Your task to perform on an android device: open app "Paramount+ | Peak Streaming" (install if not already installed) and go to login screen Image 0: 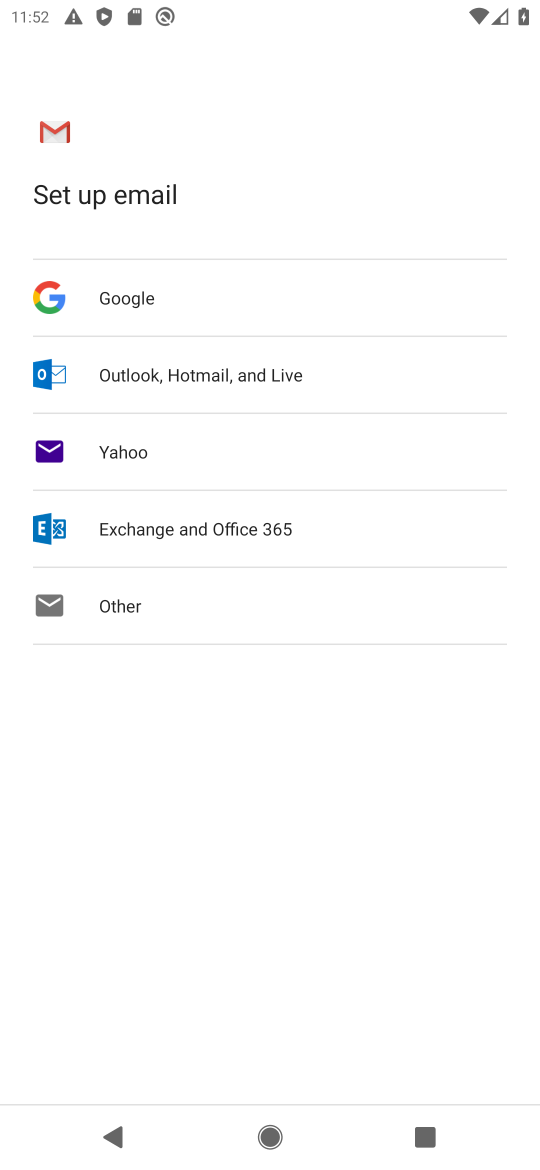
Step 0: press home button
Your task to perform on an android device: open app "Paramount+ | Peak Streaming" (install if not already installed) and go to login screen Image 1: 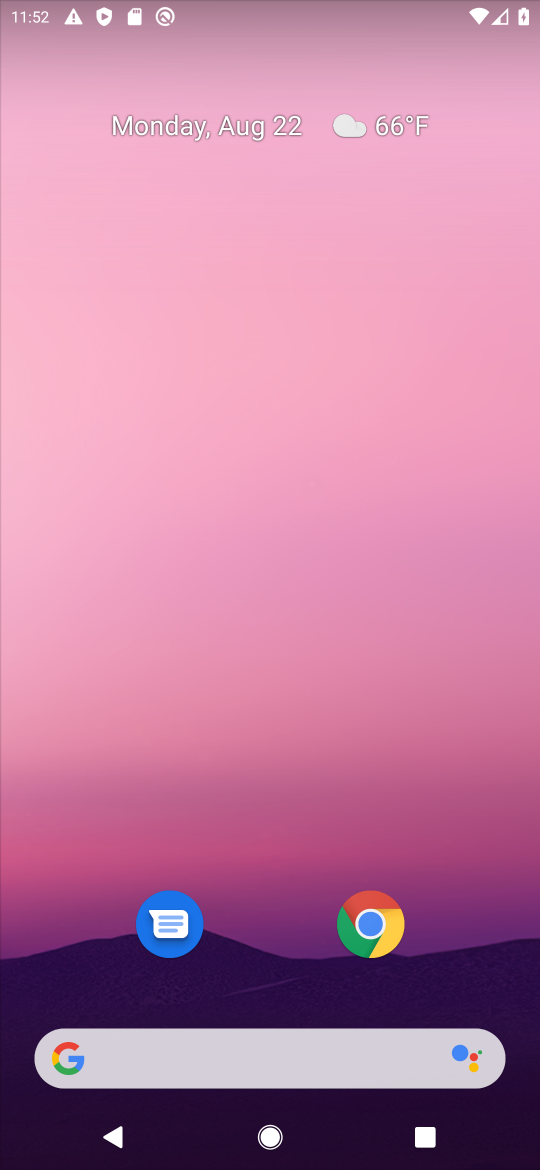
Step 1: drag from (467, 888) to (427, 131)
Your task to perform on an android device: open app "Paramount+ | Peak Streaming" (install if not already installed) and go to login screen Image 2: 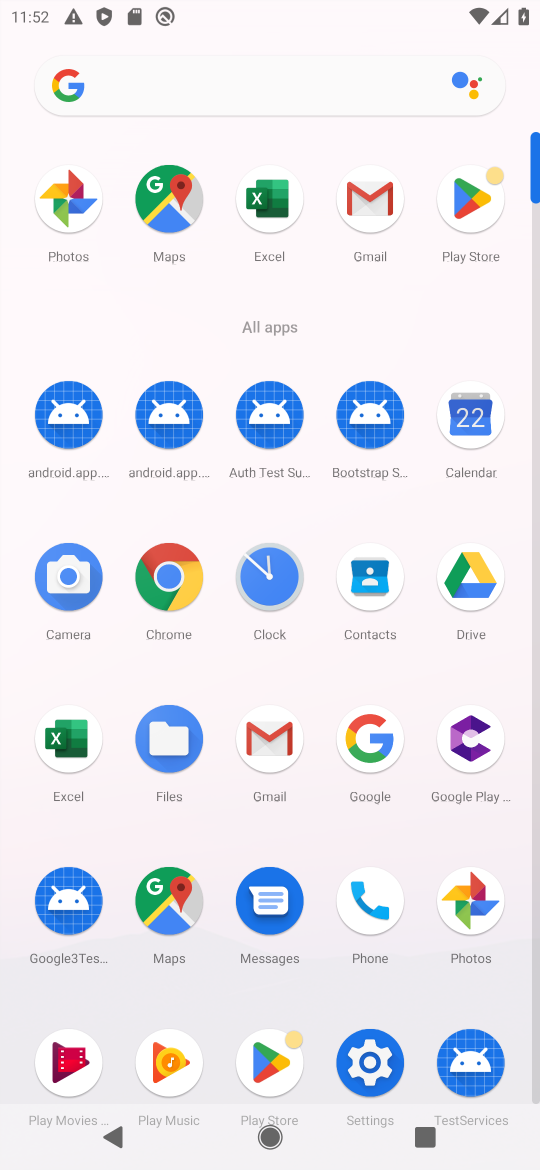
Step 2: click (465, 204)
Your task to perform on an android device: open app "Paramount+ | Peak Streaming" (install if not already installed) and go to login screen Image 3: 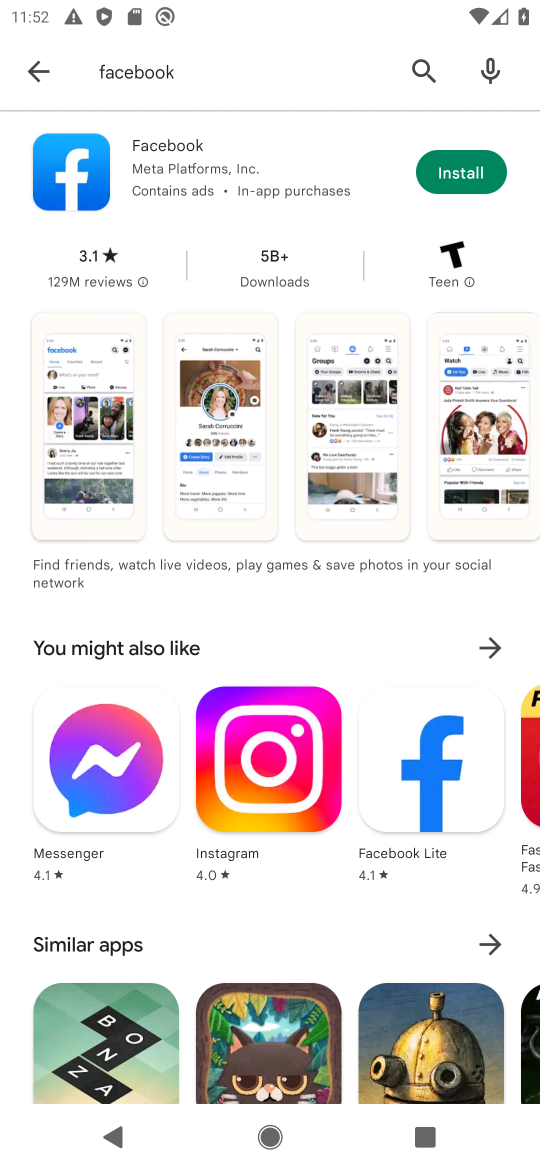
Step 3: press back button
Your task to perform on an android device: open app "Paramount+ | Peak Streaming" (install if not already installed) and go to login screen Image 4: 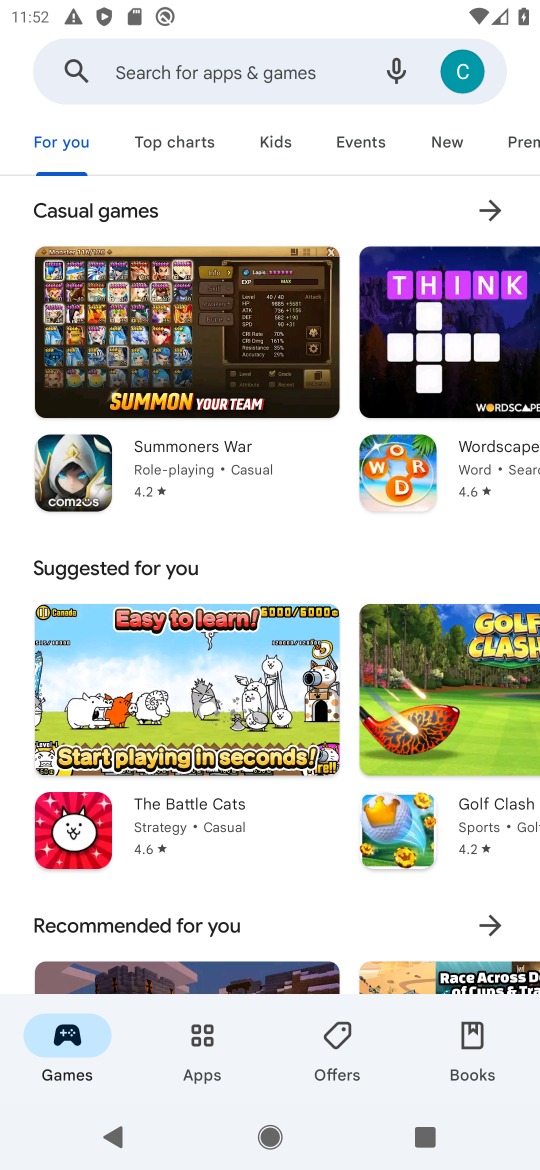
Step 4: click (196, 70)
Your task to perform on an android device: open app "Paramount+ | Peak Streaming" (install if not already installed) and go to login screen Image 5: 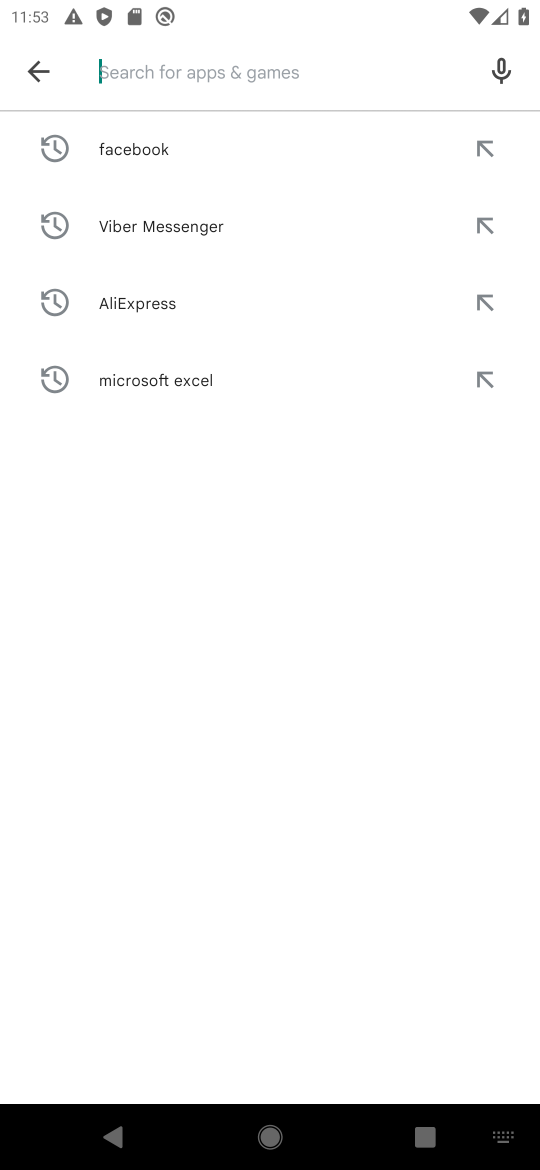
Step 5: type "Paramount+ | Peak Streaming"
Your task to perform on an android device: open app "Paramount+ | Peak Streaming" (install if not already installed) and go to login screen Image 6: 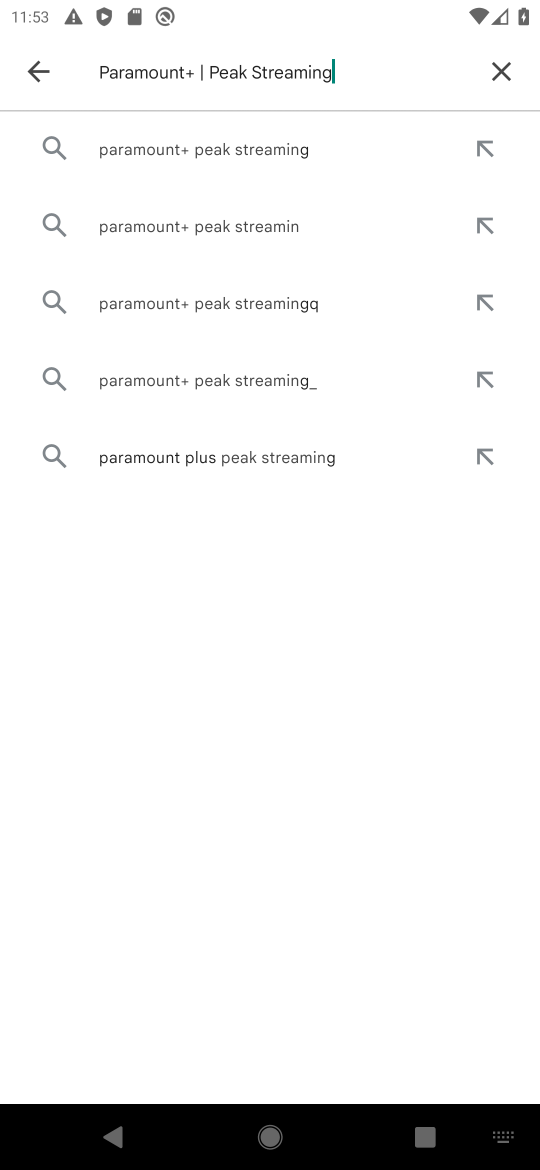
Step 6: press enter
Your task to perform on an android device: open app "Paramount+ | Peak Streaming" (install if not already installed) and go to login screen Image 7: 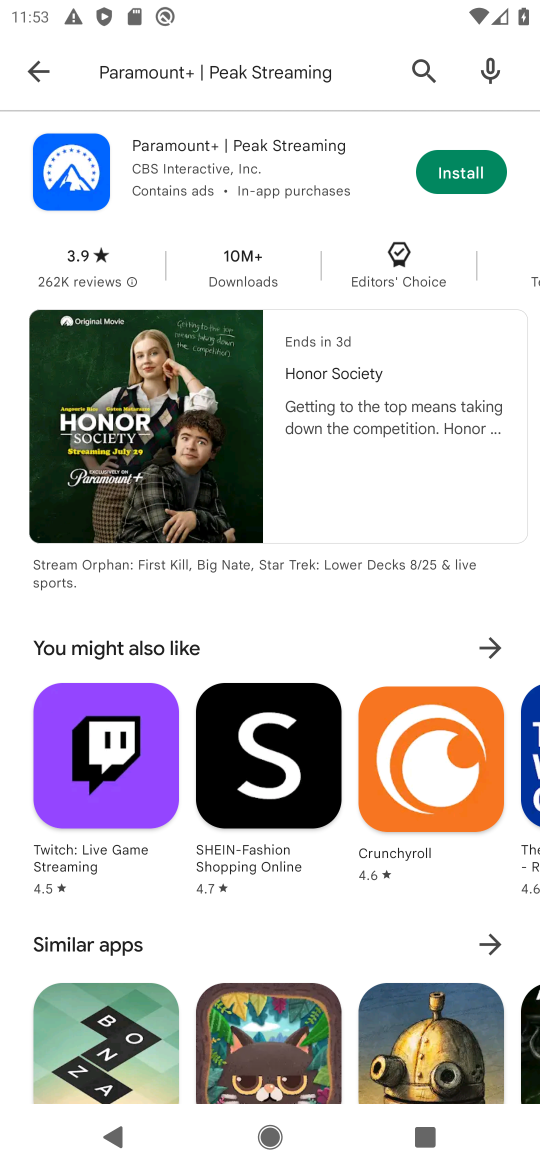
Step 7: click (445, 169)
Your task to perform on an android device: open app "Paramount+ | Peak Streaming" (install if not already installed) and go to login screen Image 8: 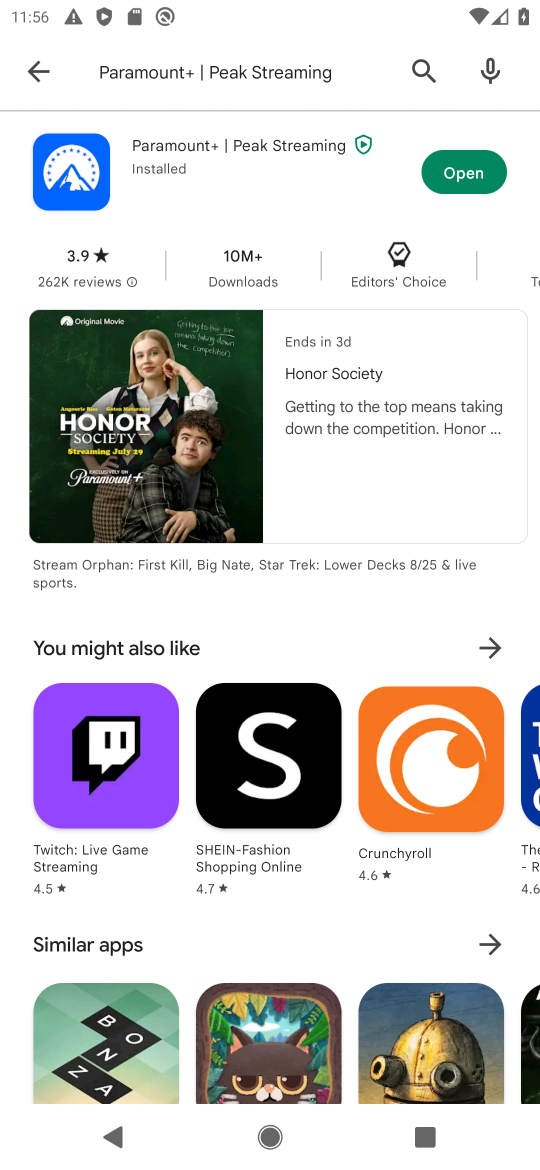
Step 8: click (478, 170)
Your task to perform on an android device: open app "Paramount+ | Peak Streaming" (install if not already installed) and go to login screen Image 9: 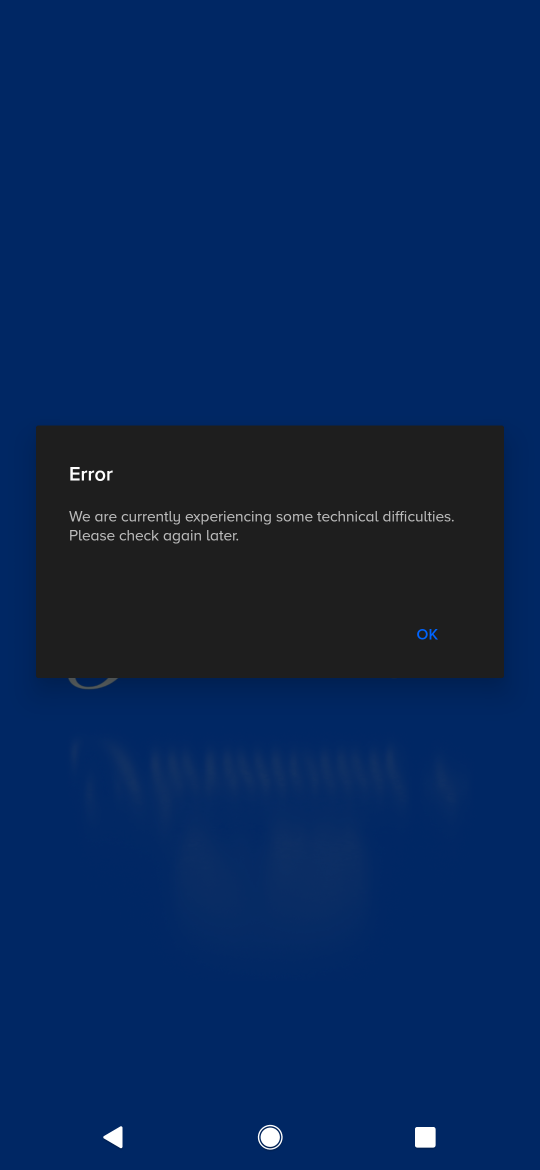
Step 9: click (431, 639)
Your task to perform on an android device: open app "Paramount+ | Peak Streaming" (install if not already installed) and go to login screen Image 10: 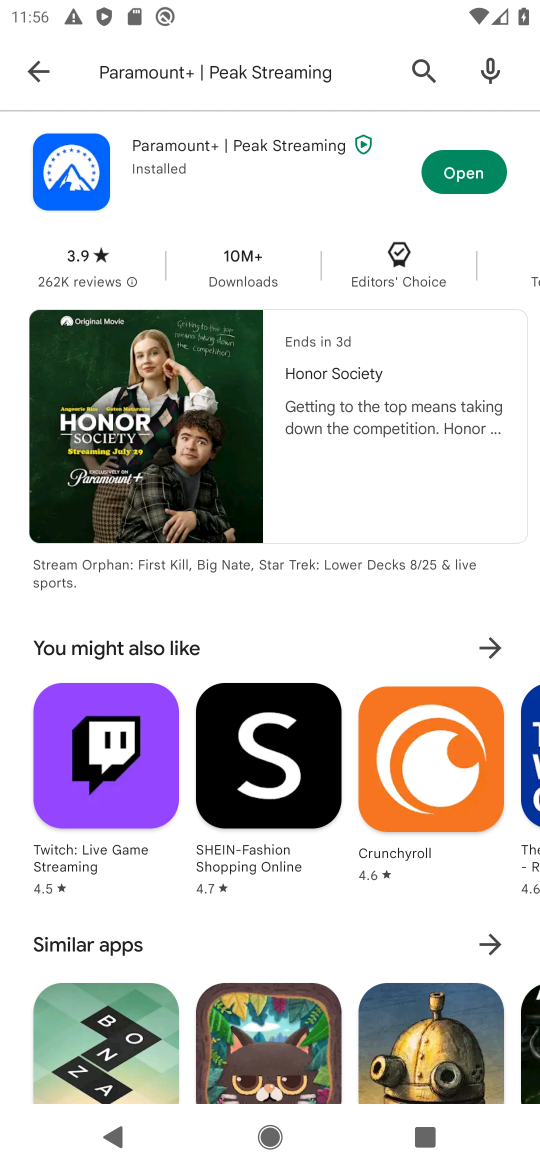
Step 10: click (475, 172)
Your task to perform on an android device: open app "Paramount+ | Peak Streaming" (install if not already installed) and go to login screen Image 11: 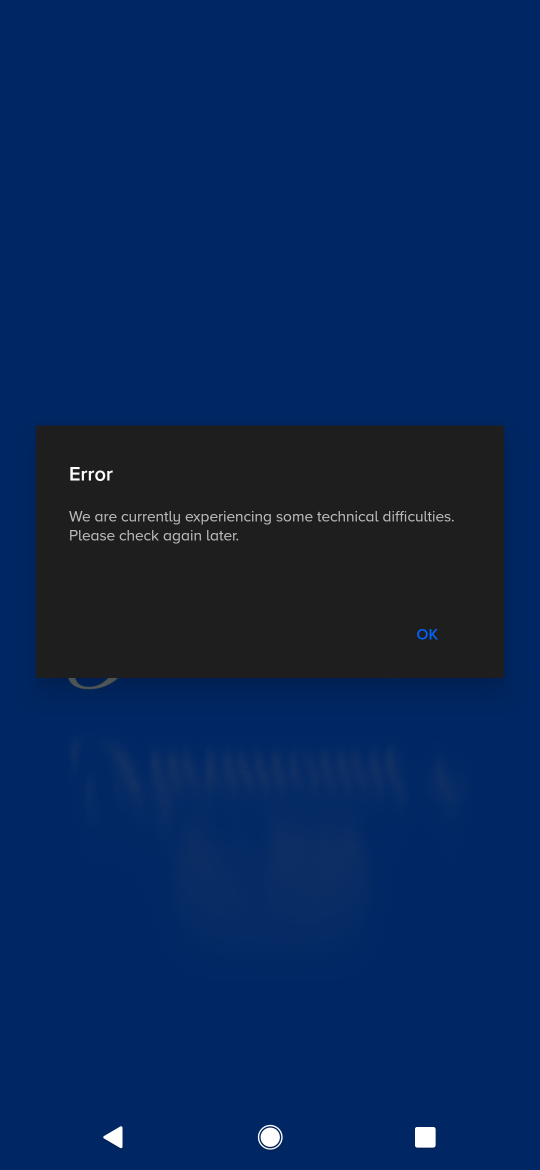
Step 11: task complete